Your task to perform on an android device: turn on javascript in the chrome app Image 0: 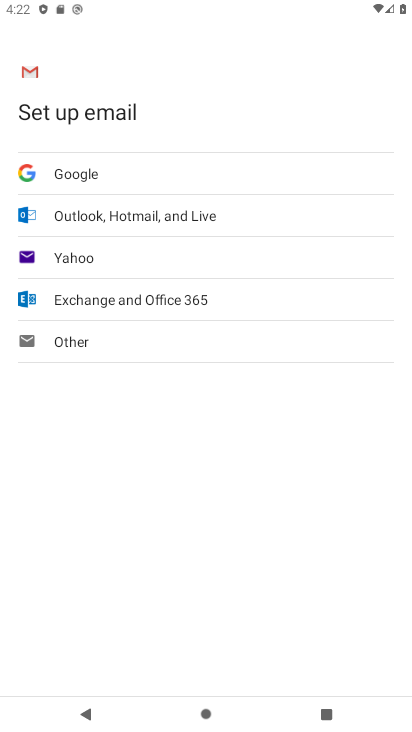
Step 0: press back button
Your task to perform on an android device: turn on javascript in the chrome app Image 1: 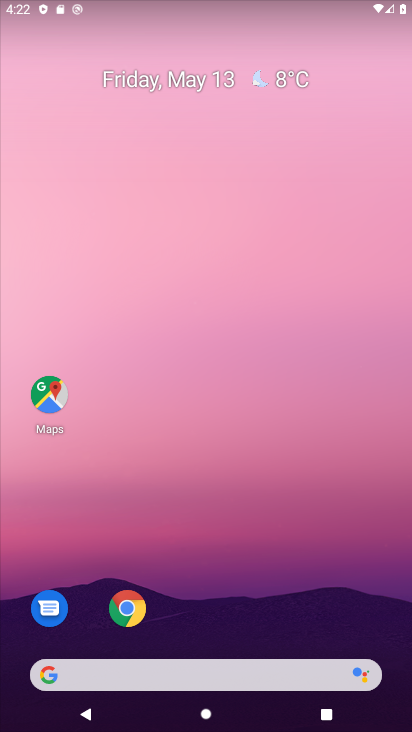
Step 1: click (128, 607)
Your task to perform on an android device: turn on javascript in the chrome app Image 2: 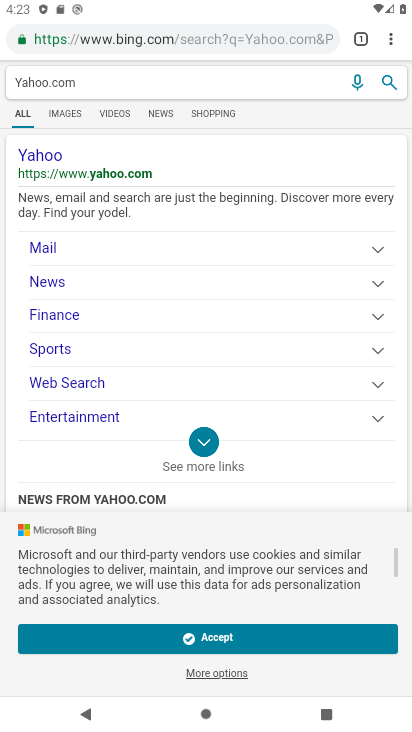
Step 2: click (389, 39)
Your task to perform on an android device: turn on javascript in the chrome app Image 3: 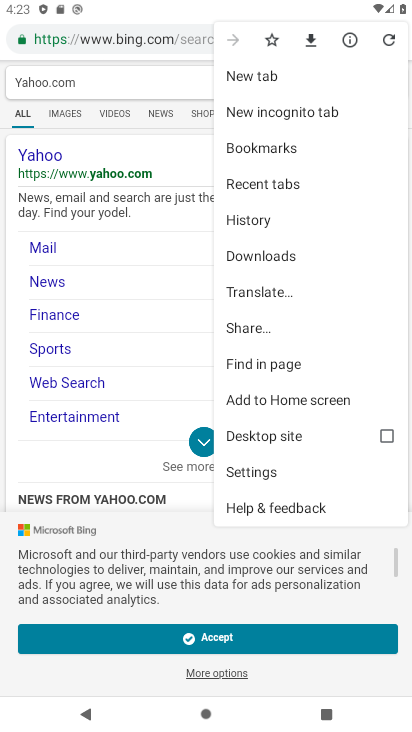
Step 3: click (248, 471)
Your task to perform on an android device: turn on javascript in the chrome app Image 4: 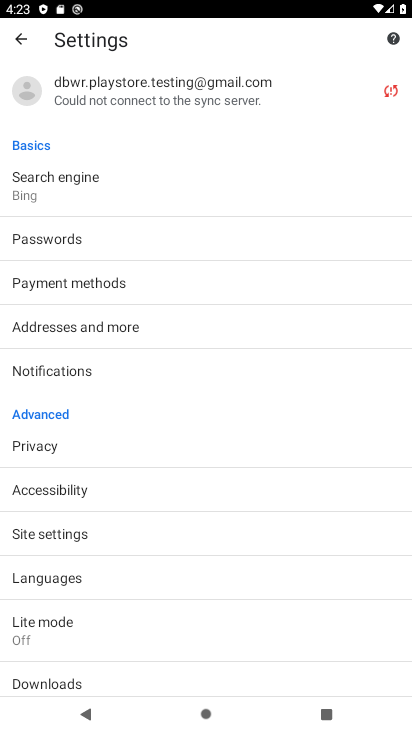
Step 4: drag from (92, 439) to (119, 356)
Your task to perform on an android device: turn on javascript in the chrome app Image 5: 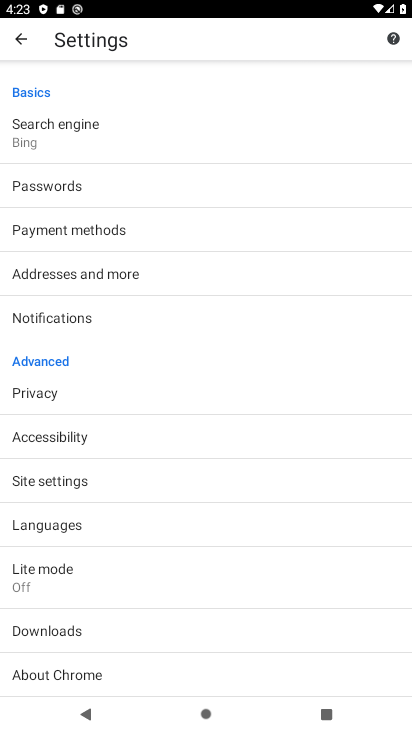
Step 5: click (57, 481)
Your task to perform on an android device: turn on javascript in the chrome app Image 6: 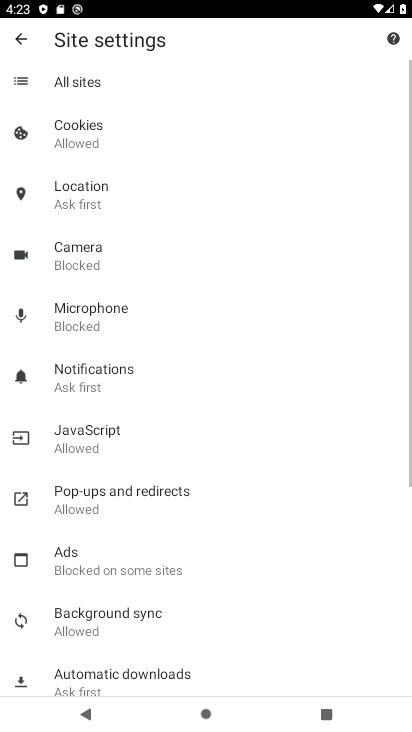
Step 6: drag from (142, 552) to (164, 479)
Your task to perform on an android device: turn on javascript in the chrome app Image 7: 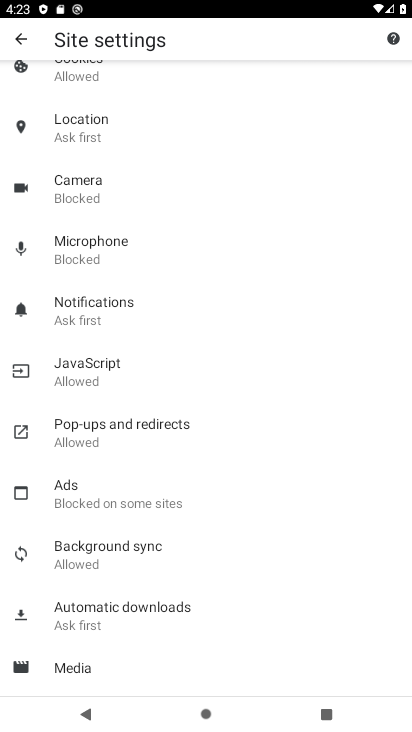
Step 7: click (90, 374)
Your task to perform on an android device: turn on javascript in the chrome app Image 8: 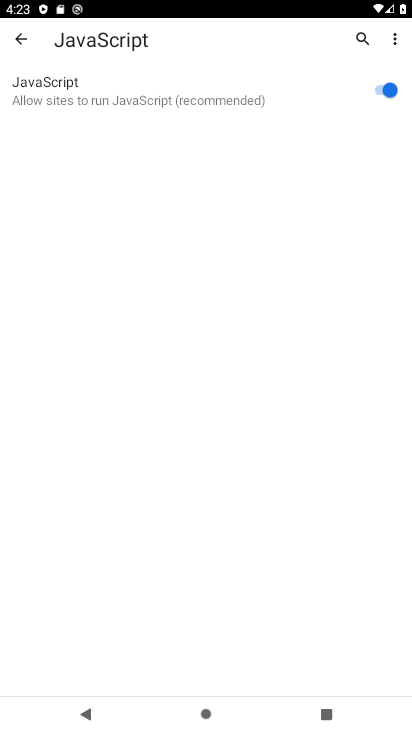
Step 8: task complete